Your task to perform on an android device: Go to battery settings Image 0: 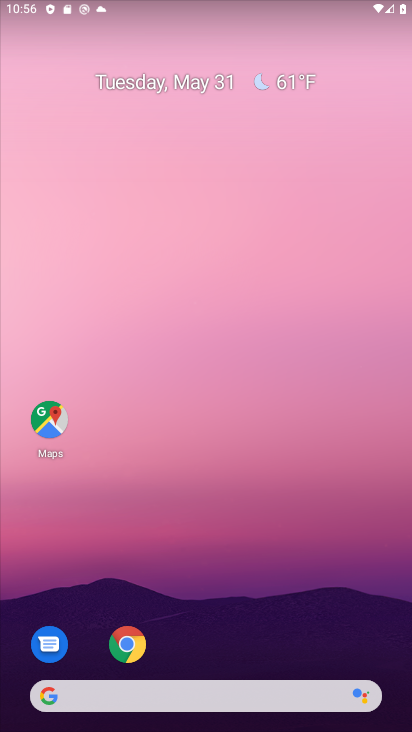
Step 0: drag from (233, 631) to (247, 82)
Your task to perform on an android device: Go to battery settings Image 1: 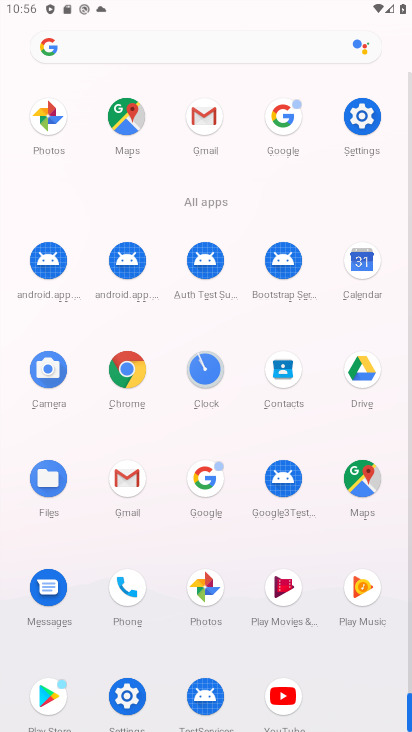
Step 1: click (364, 128)
Your task to perform on an android device: Go to battery settings Image 2: 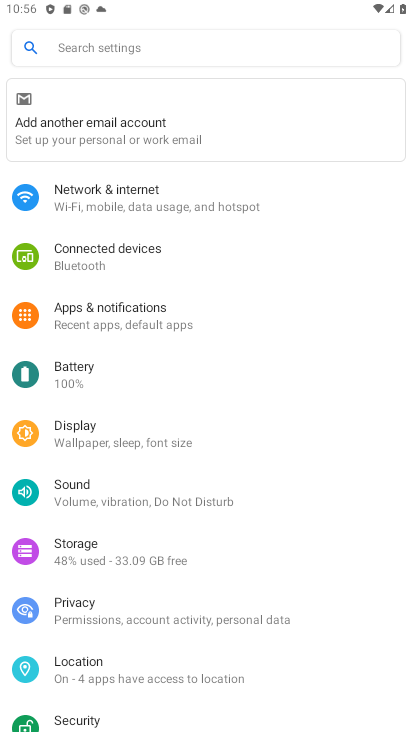
Step 2: click (93, 380)
Your task to perform on an android device: Go to battery settings Image 3: 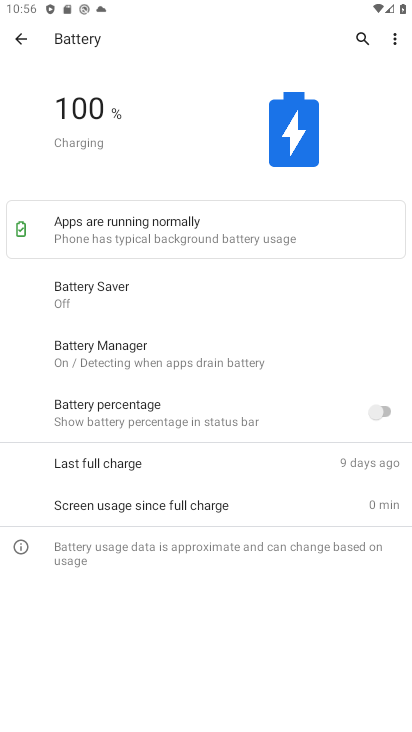
Step 3: task complete